Your task to perform on an android device: turn on sleep mode Image 0: 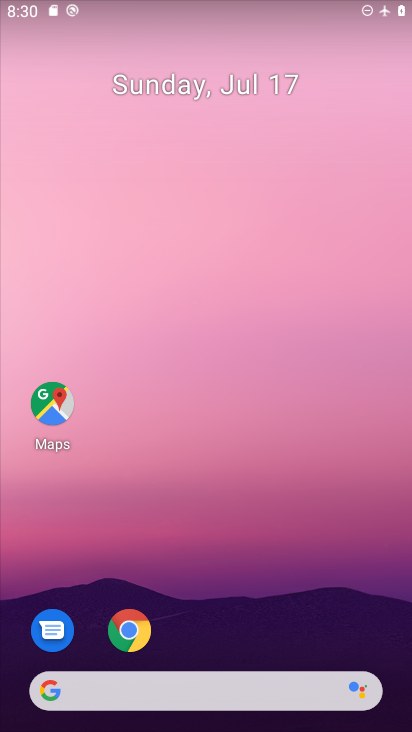
Step 0: drag from (285, 648) to (297, 60)
Your task to perform on an android device: turn on sleep mode Image 1: 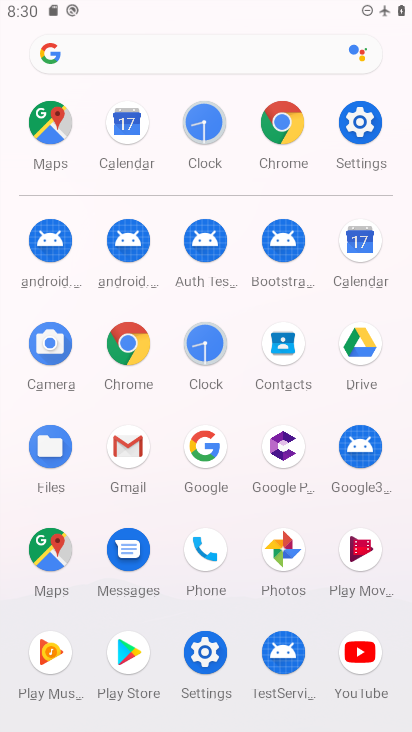
Step 1: click (356, 136)
Your task to perform on an android device: turn on sleep mode Image 2: 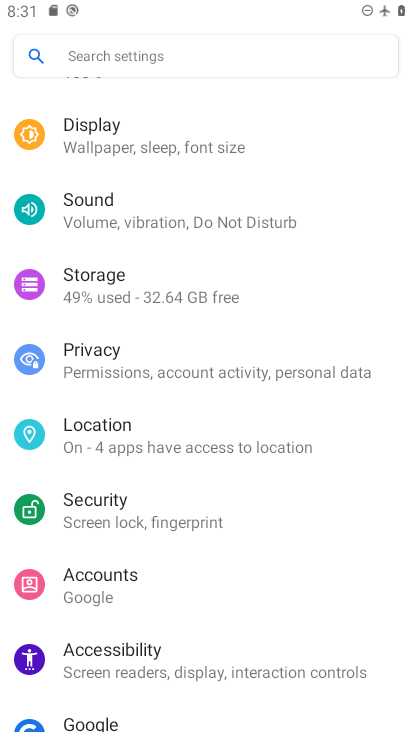
Step 2: task complete